Your task to perform on an android device: turn on improve location accuracy Image 0: 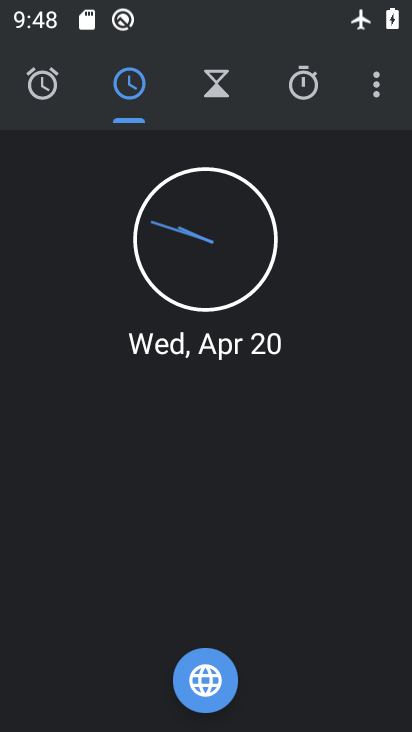
Step 0: press home button
Your task to perform on an android device: turn on improve location accuracy Image 1: 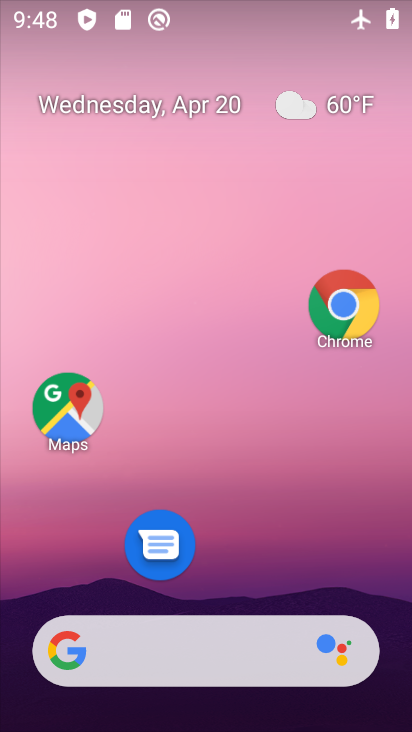
Step 1: drag from (235, 559) to (282, 37)
Your task to perform on an android device: turn on improve location accuracy Image 2: 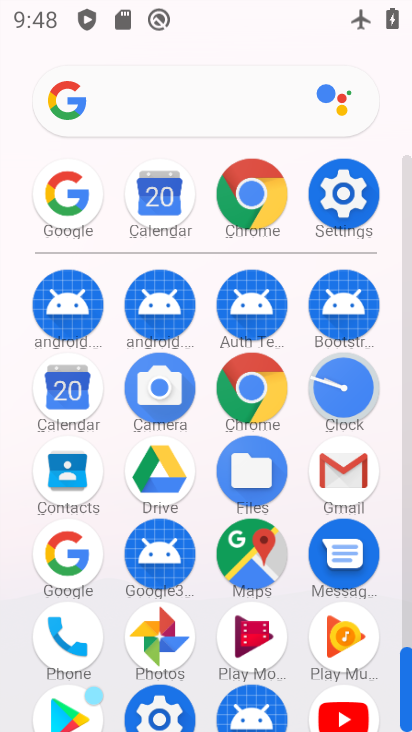
Step 2: click (351, 204)
Your task to perform on an android device: turn on improve location accuracy Image 3: 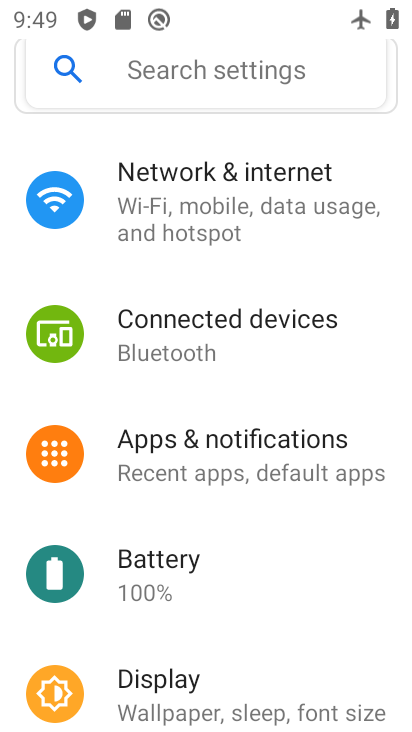
Step 3: drag from (186, 524) to (265, 214)
Your task to perform on an android device: turn on improve location accuracy Image 4: 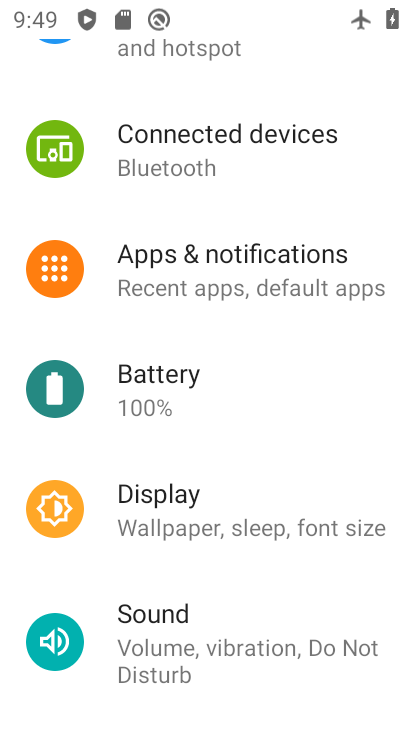
Step 4: drag from (219, 483) to (223, 193)
Your task to perform on an android device: turn on improve location accuracy Image 5: 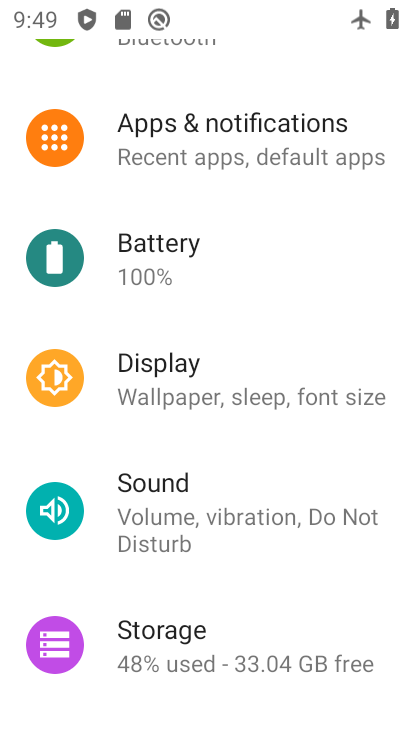
Step 5: drag from (171, 599) to (220, 262)
Your task to perform on an android device: turn on improve location accuracy Image 6: 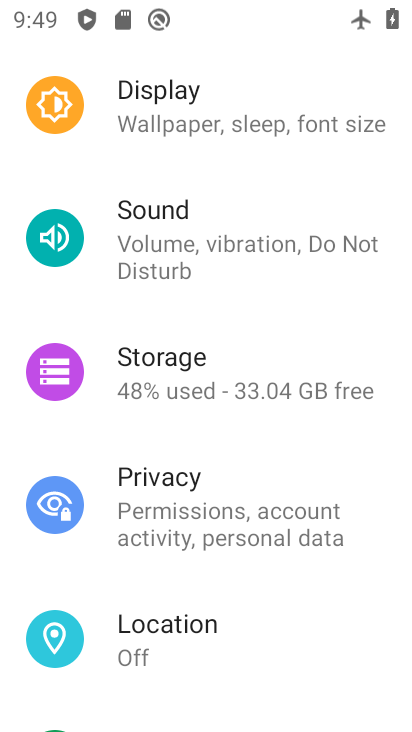
Step 6: drag from (159, 554) to (178, 320)
Your task to perform on an android device: turn on improve location accuracy Image 7: 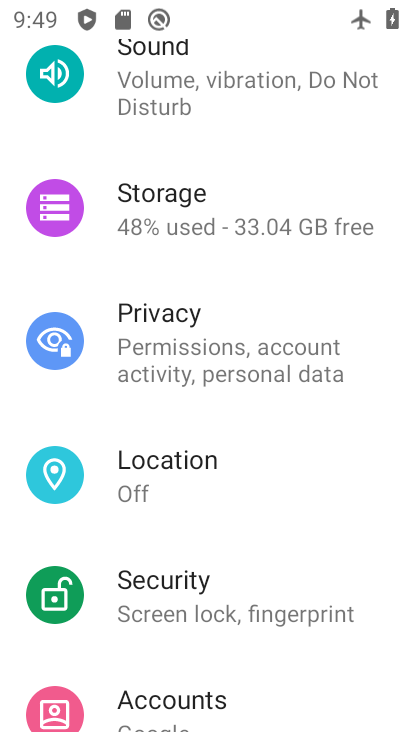
Step 7: click (174, 482)
Your task to perform on an android device: turn on improve location accuracy Image 8: 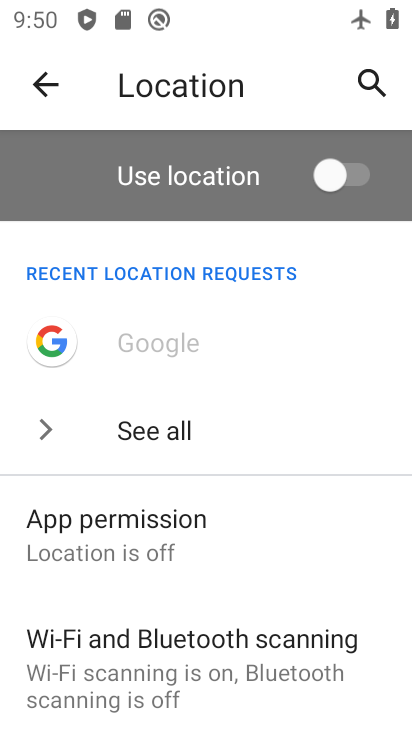
Step 8: drag from (251, 528) to (293, 173)
Your task to perform on an android device: turn on improve location accuracy Image 9: 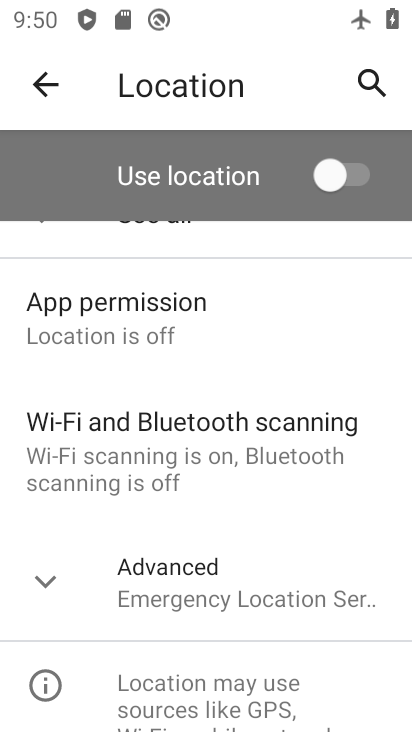
Step 9: click (203, 571)
Your task to perform on an android device: turn on improve location accuracy Image 10: 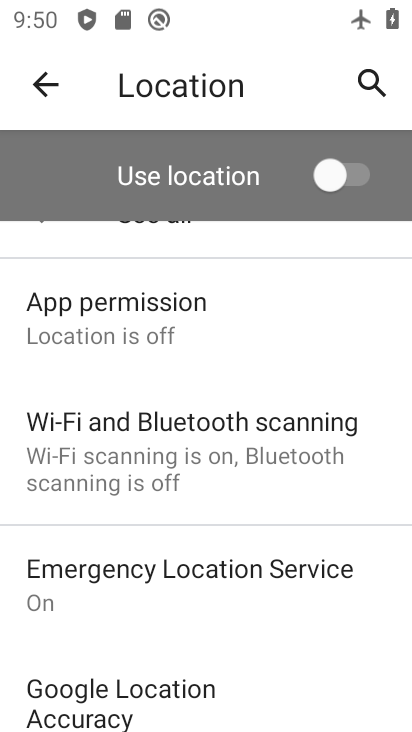
Step 10: drag from (240, 595) to (309, 204)
Your task to perform on an android device: turn on improve location accuracy Image 11: 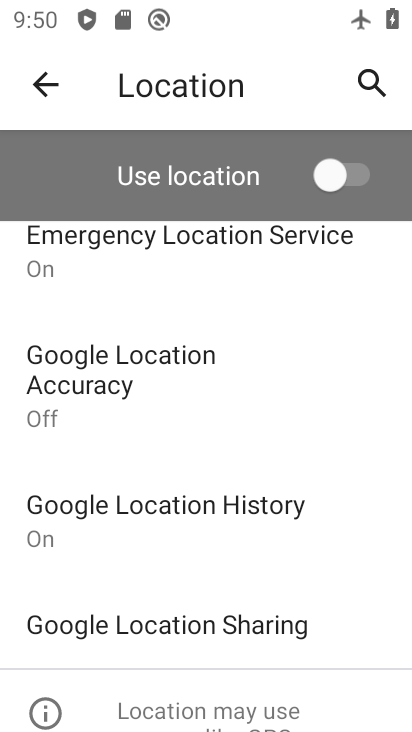
Step 11: drag from (230, 511) to (250, 370)
Your task to perform on an android device: turn on improve location accuracy Image 12: 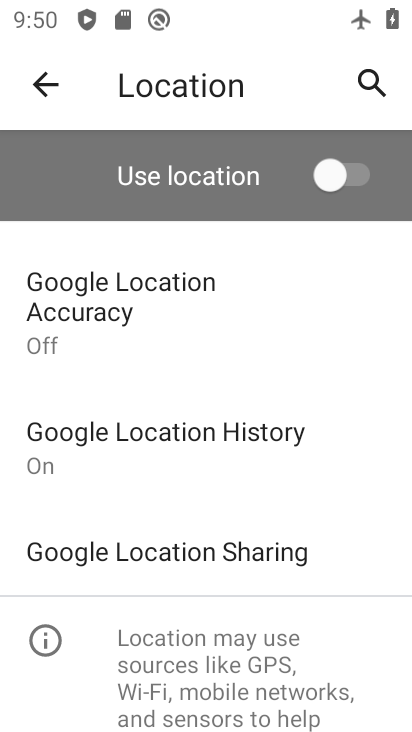
Step 12: click (209, 325)
Your task to perform on an android device: turn on improve location accuracy Image 13: 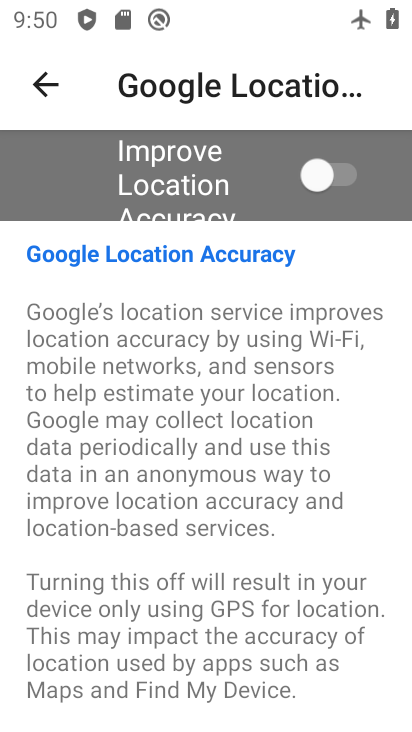
Step 13: click (351, 184)
Your task to perform on an android device: turn on improve location accuracy Image 14: 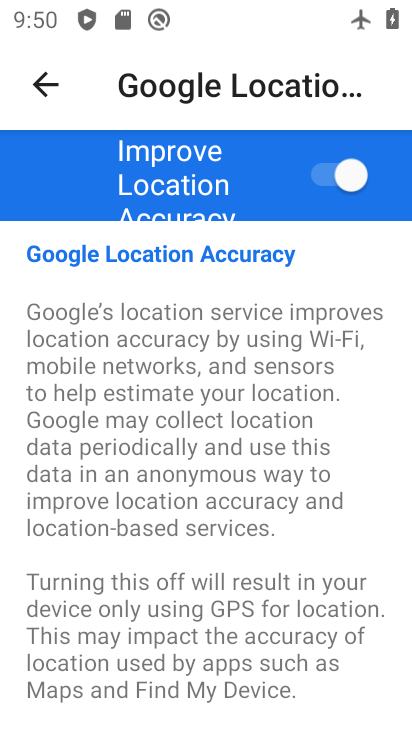
Step 14: task complete